Your task to perform on an android device: Open my contact list Image 0: 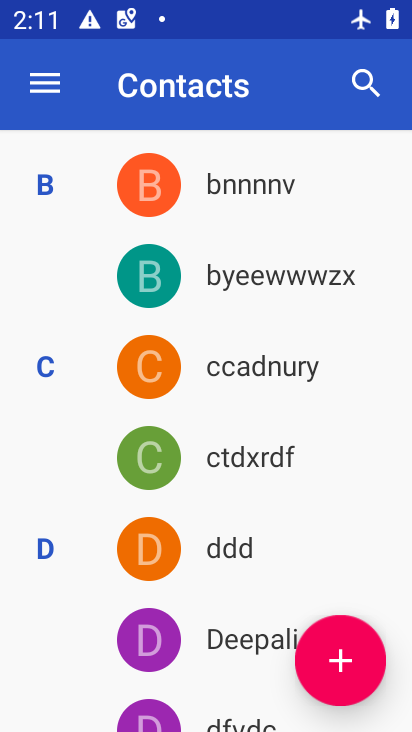
Step 0: press home button
Your task to perform on an android device: Open my contact list Image 1: 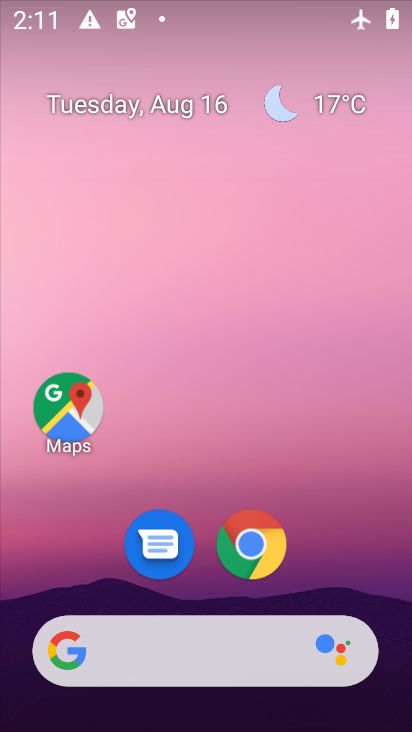
Step 1: drag from (192, 649) to (238, 163)
Your task to perform on an android device: Open my contact list Image 2: 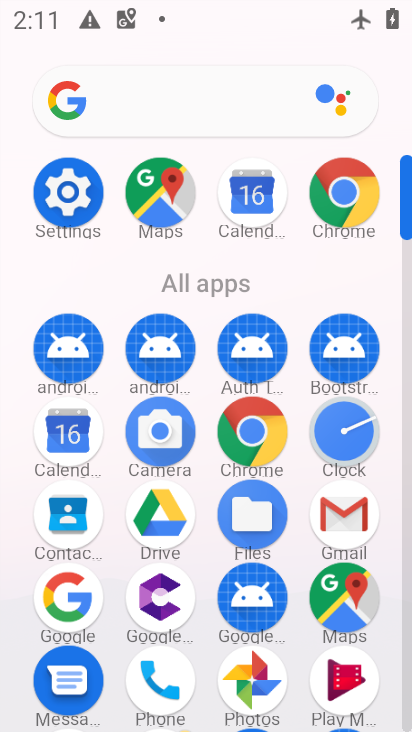
Step 2: click (64, 516)
Your task to perform on an android device: Open my contact list Image 3: 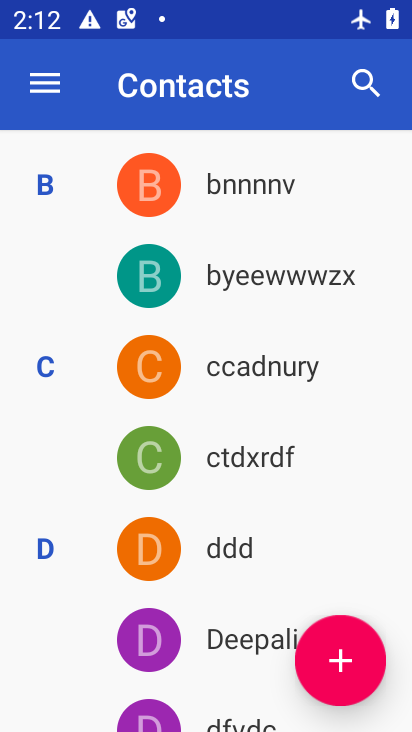
Step 3: task complete